Your task to perform on an android device: see sites visited before in the chrome app Image 0: 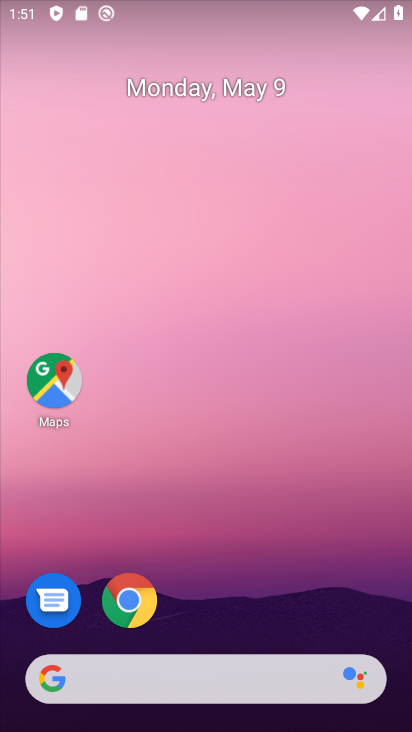
Step 0: drag from (283, 536) to (244, 40)
Your task to perform on an android device: see sites visited before in the chrome app Image 1: 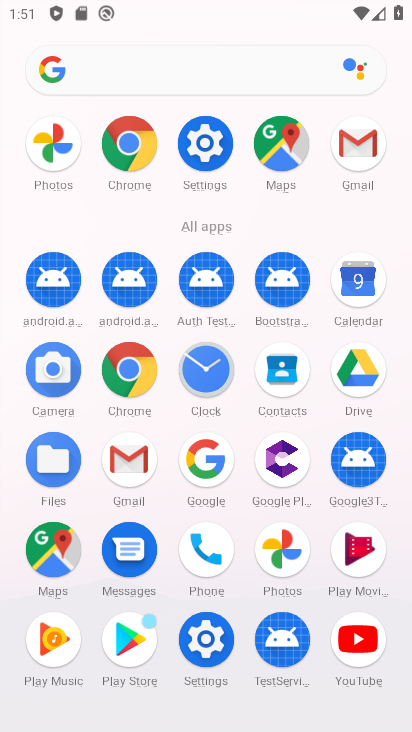
Step 1: click (131, 370)
Your task to perform on an android device: see sites visited before in the chrome app Image 2: 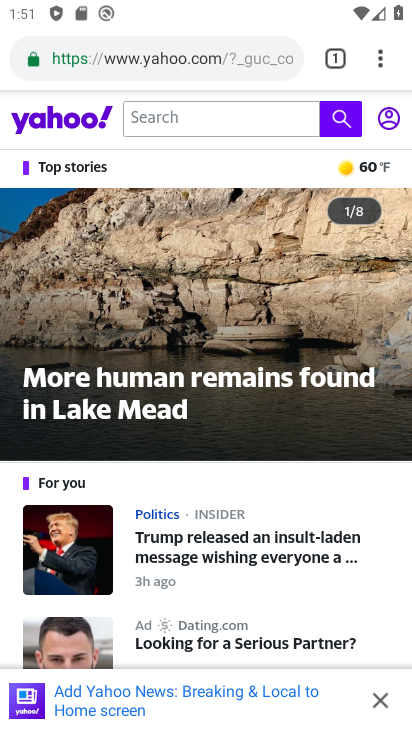
Step 2: task complete